Your task to perform on an android device: Open the stopwatch Image 0: 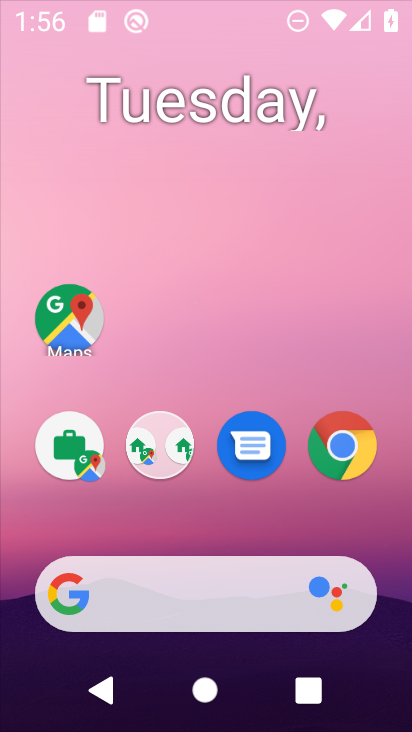
Step 0: click (80, 351)
Your task to perform on an android device: Open the stopwatch Image 1: 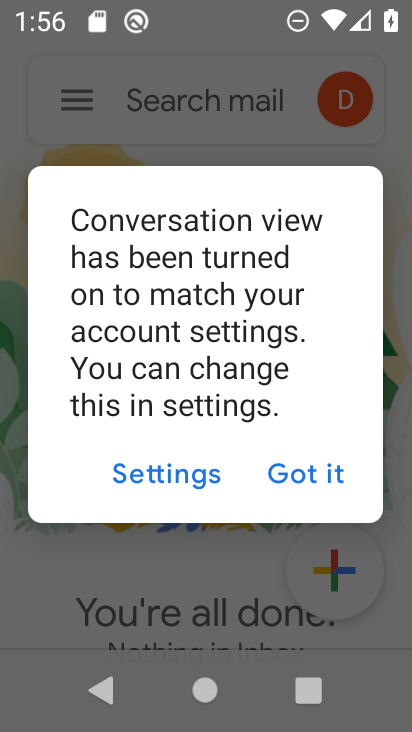
Step 1: click (317, 472)
Your task to perform on an android device: Open the stopwatch Image 2: 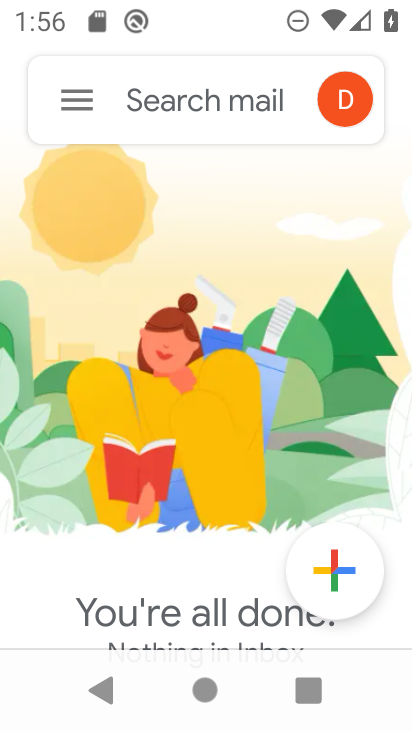
Step 2: press home button
Your task to perform on an android device: Open the stopwatch Image 3: 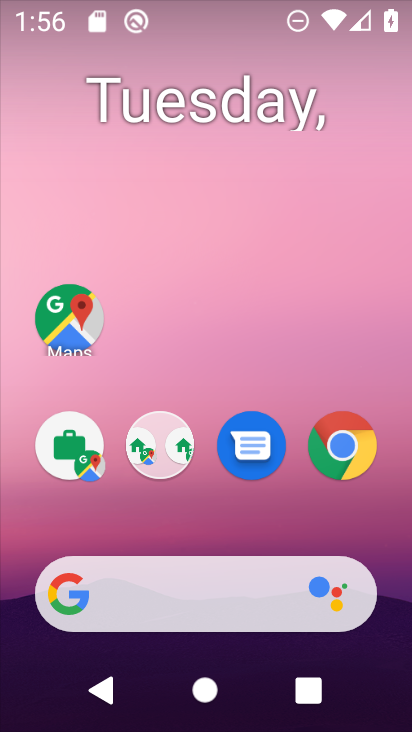
Step 3: drag from (292, 442) to (248, 134)
Your task to perform on an android device: Open the stopwatch Image 4: 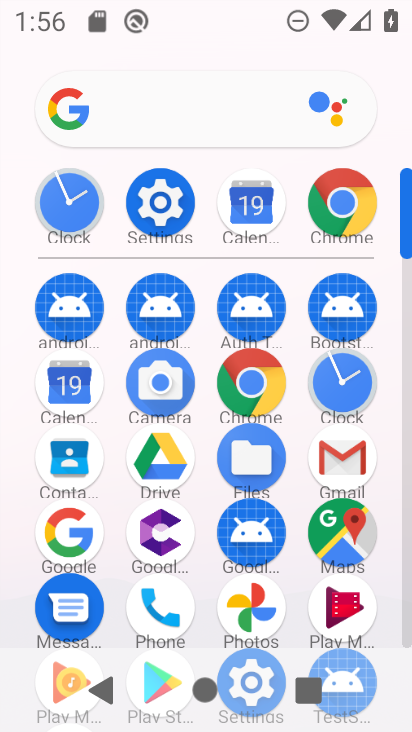
Step 4: click (359, 396)
Your task to perform on an android device: Open the stopwatch Image 5: 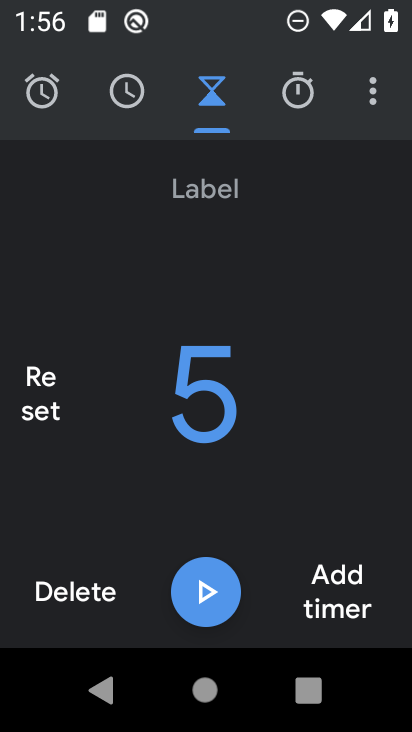
Step 5: click (279, 113)
Your task to perform on an android device: Open the stopwatch Image 6: 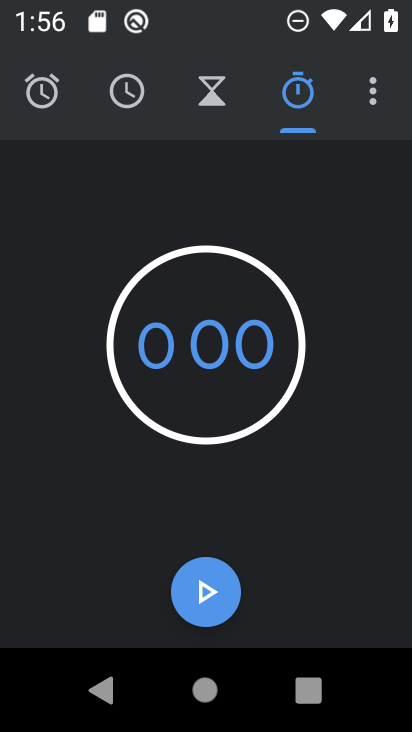
Step 6: task complete